Your task to perform on an android device: find snoozed emails in the gmail app Image 0: 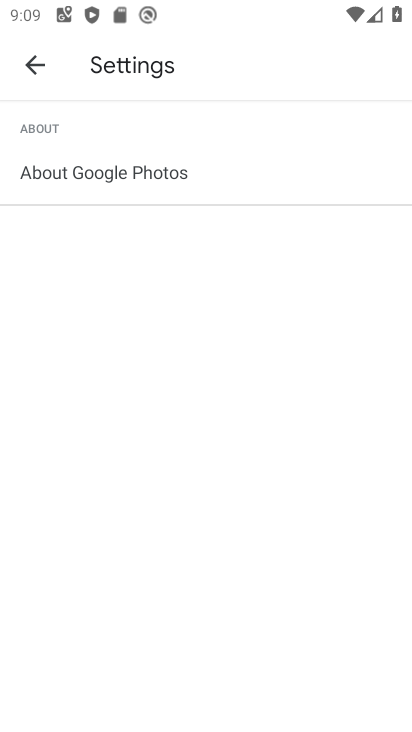
Step 0: press home button
Your task to perform on an android device: find snoozed emails in the gmail app Image 1: 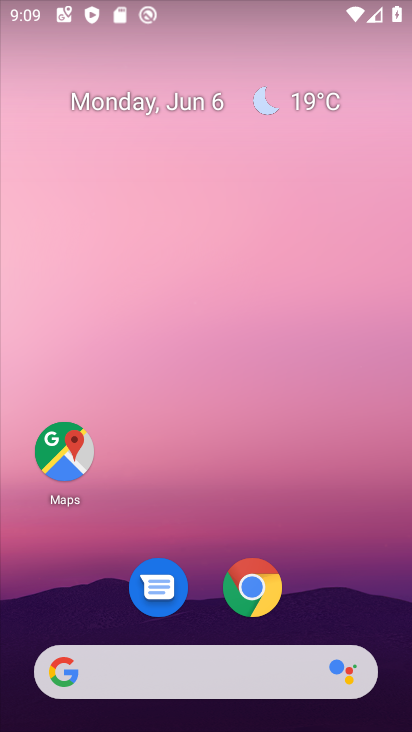
Step 1: drag from (218, 643) to (222, 330)
Your task to perform on an android device: find snoozed emails in the gmail app Image 2: 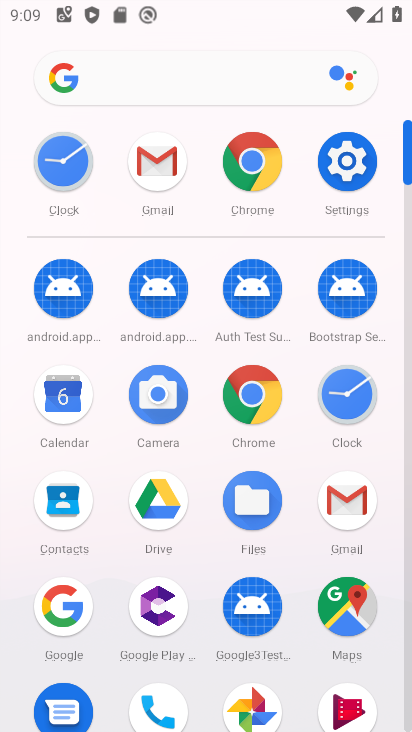
Step 2: click (163, 165)
Your task to perform on an android device: find snoozed emails in the gmail app Image 3: 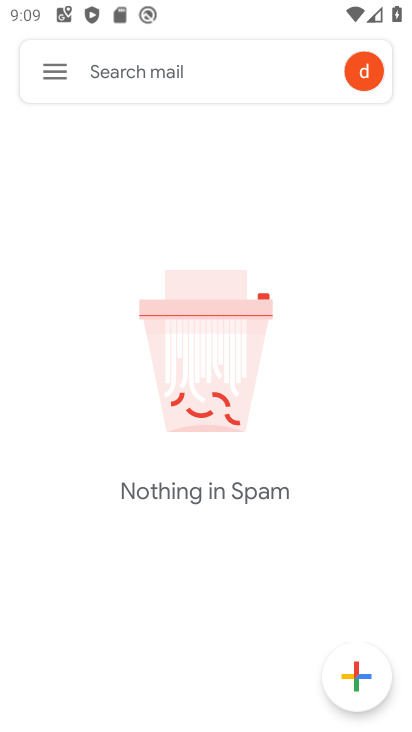
Step 3: click (46, 72)
Your task to perform on an android device: find snoozed emails in the gmail app Image 4: 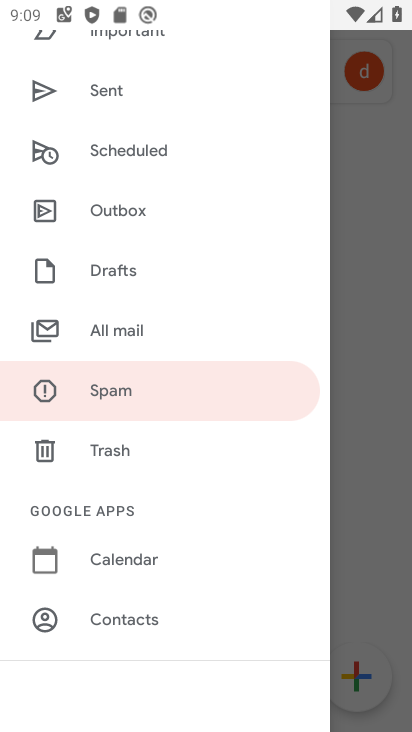
Step 4: drag from (130, 245) to (223, 512)
Your task to perform on an android device: find snoozed emails in the gmail app Image 5: 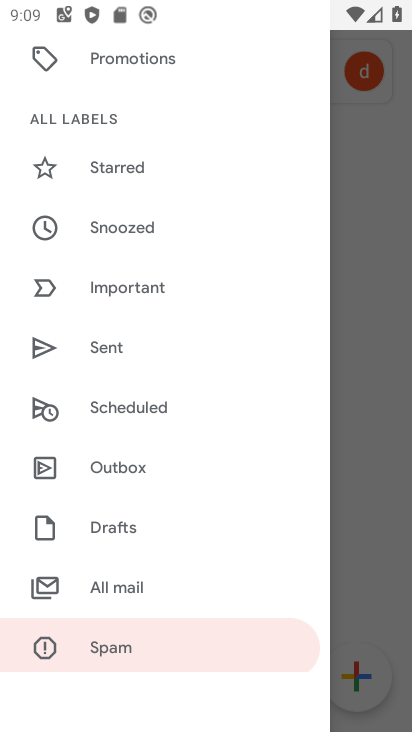
Step 5: click (112, 229)
Your task to perform on an android device: find snoozed emails in the gmail app Image 6: 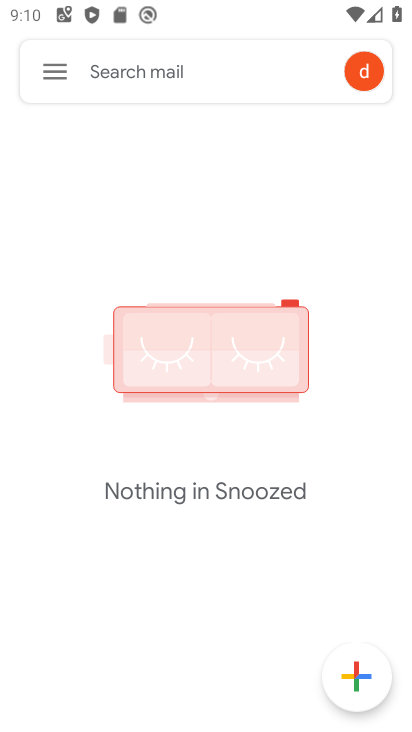
Step 6: task complete